Your task to perform on an android device: open app "Google Play Music" Image 0: 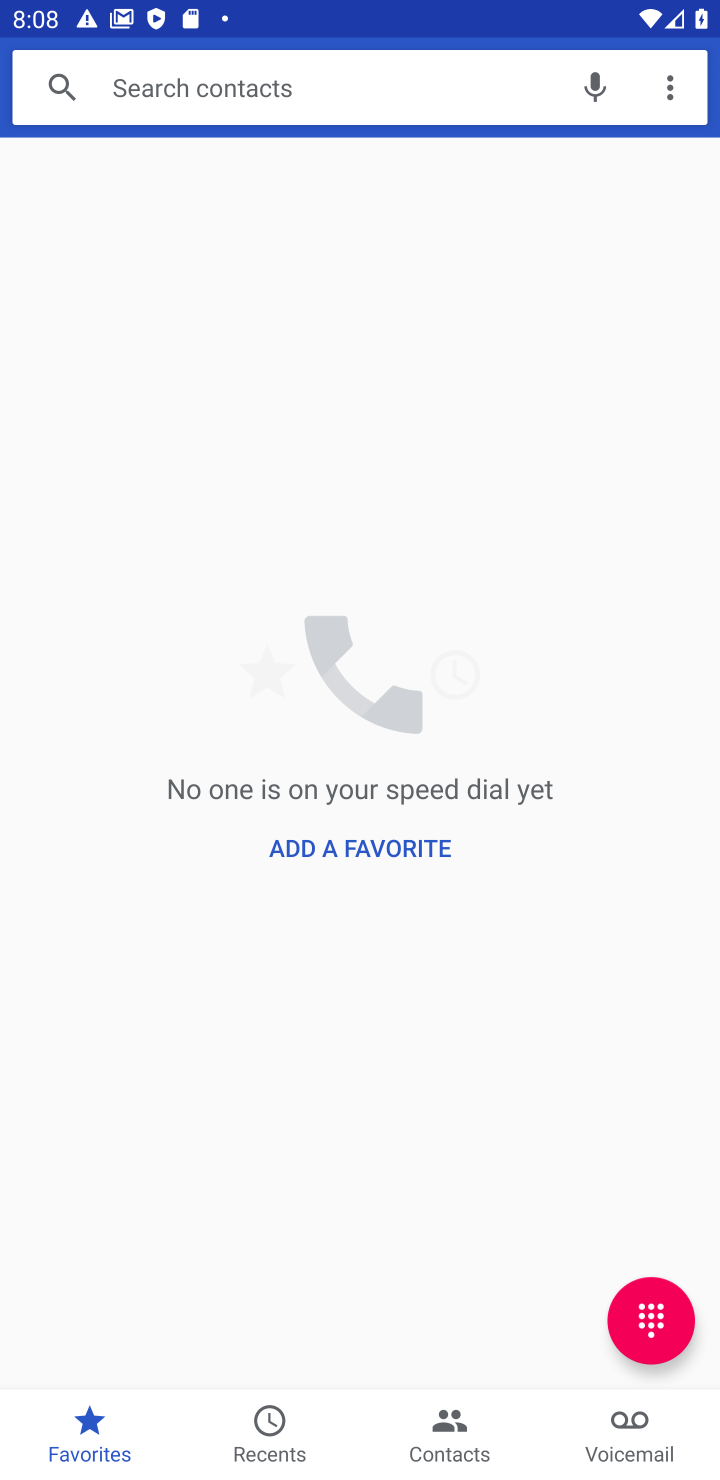
Step 0: press home button
Your task to perform on an android device: open app "Google Play Music" Image 1: 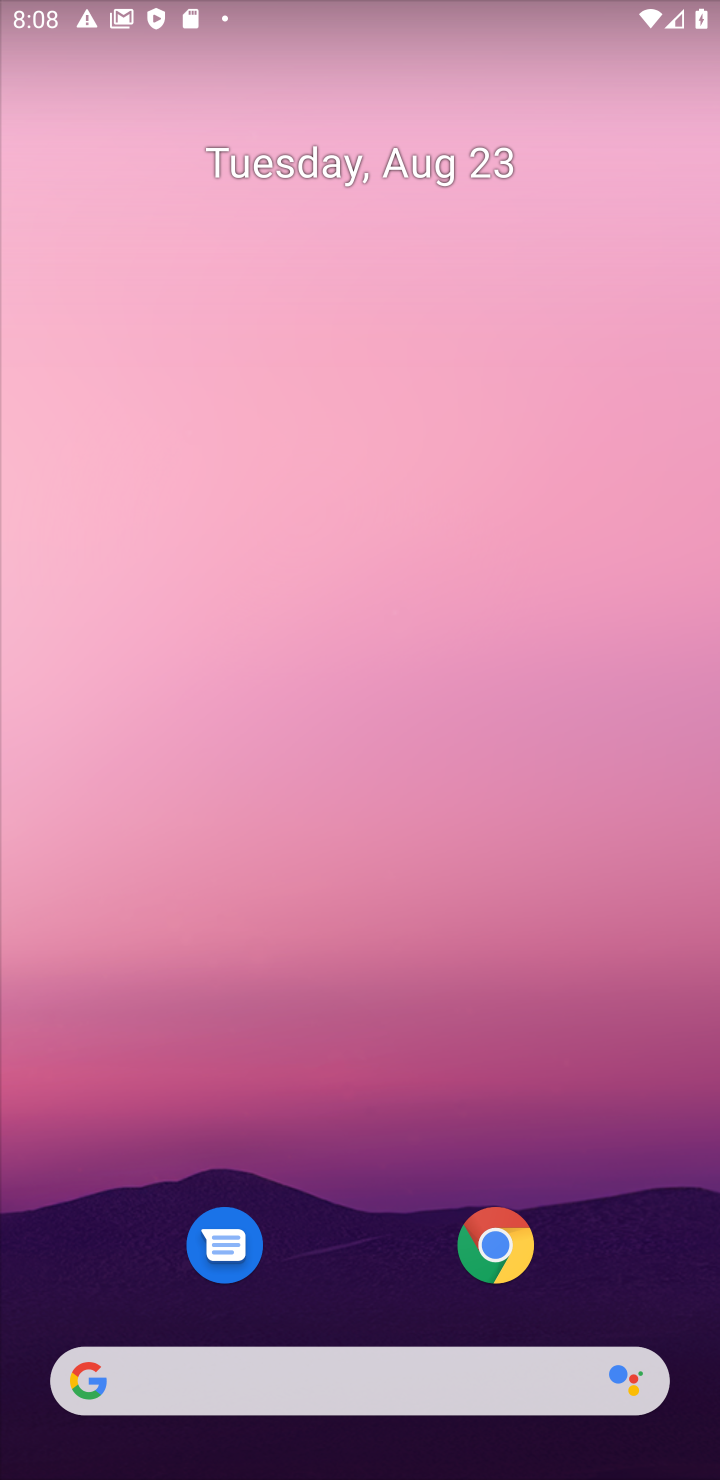
Step 1: drag from (368, 1237) to (361, 72)
Your task to perform on an android device: open app "Google Play Music" Image 2: 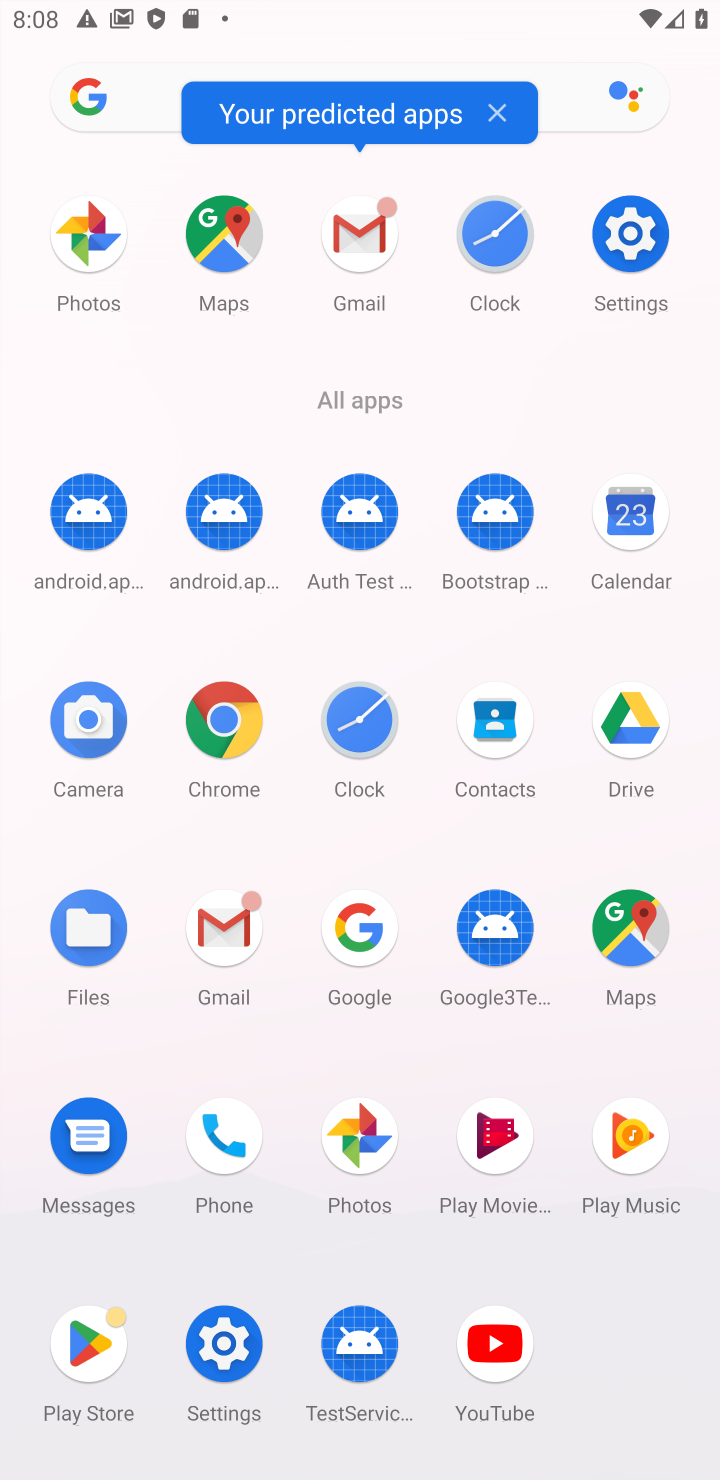
Step 2: click (90, 1351)
Your task to perform on an android device: open app "Google Play Music" Image 3: 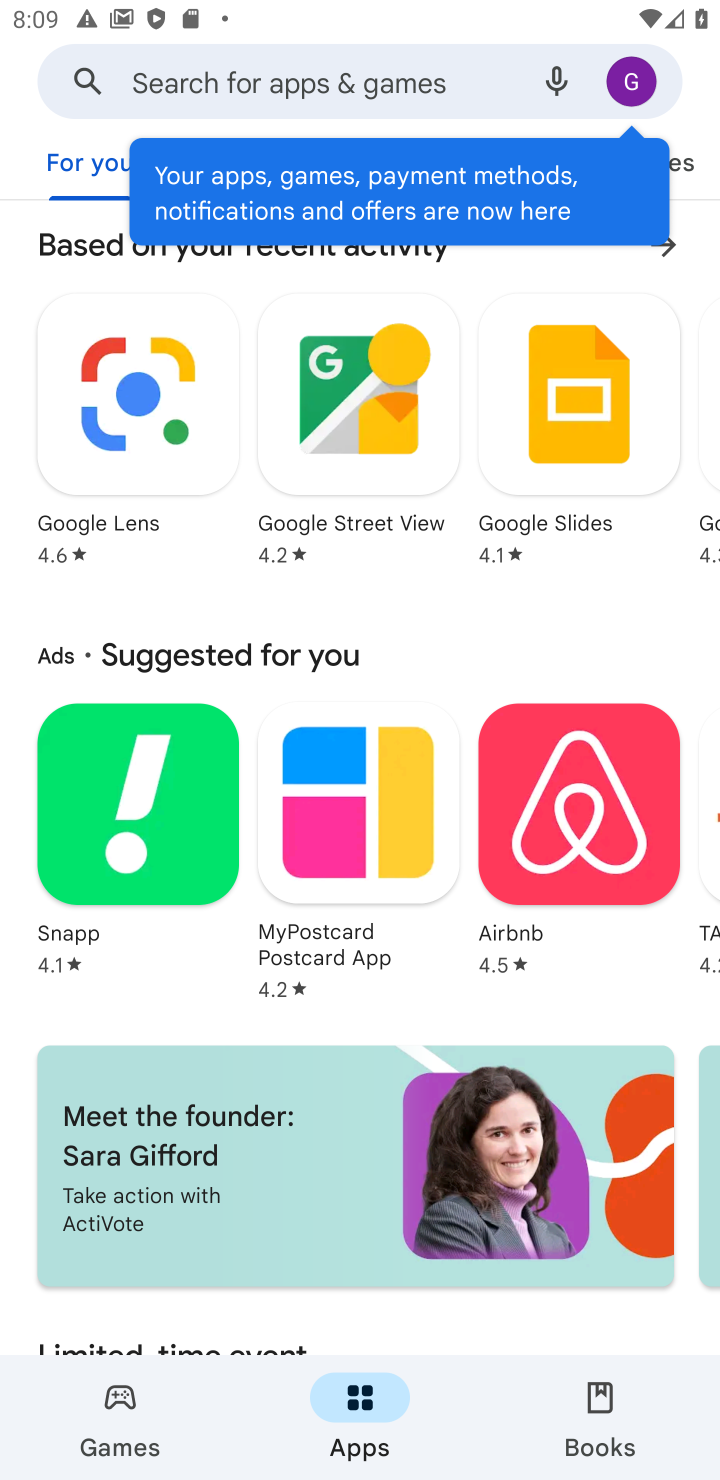
Step 3: click (399, 93)
Your task to perform on an android device: open app "Google Play Music" Image 4: 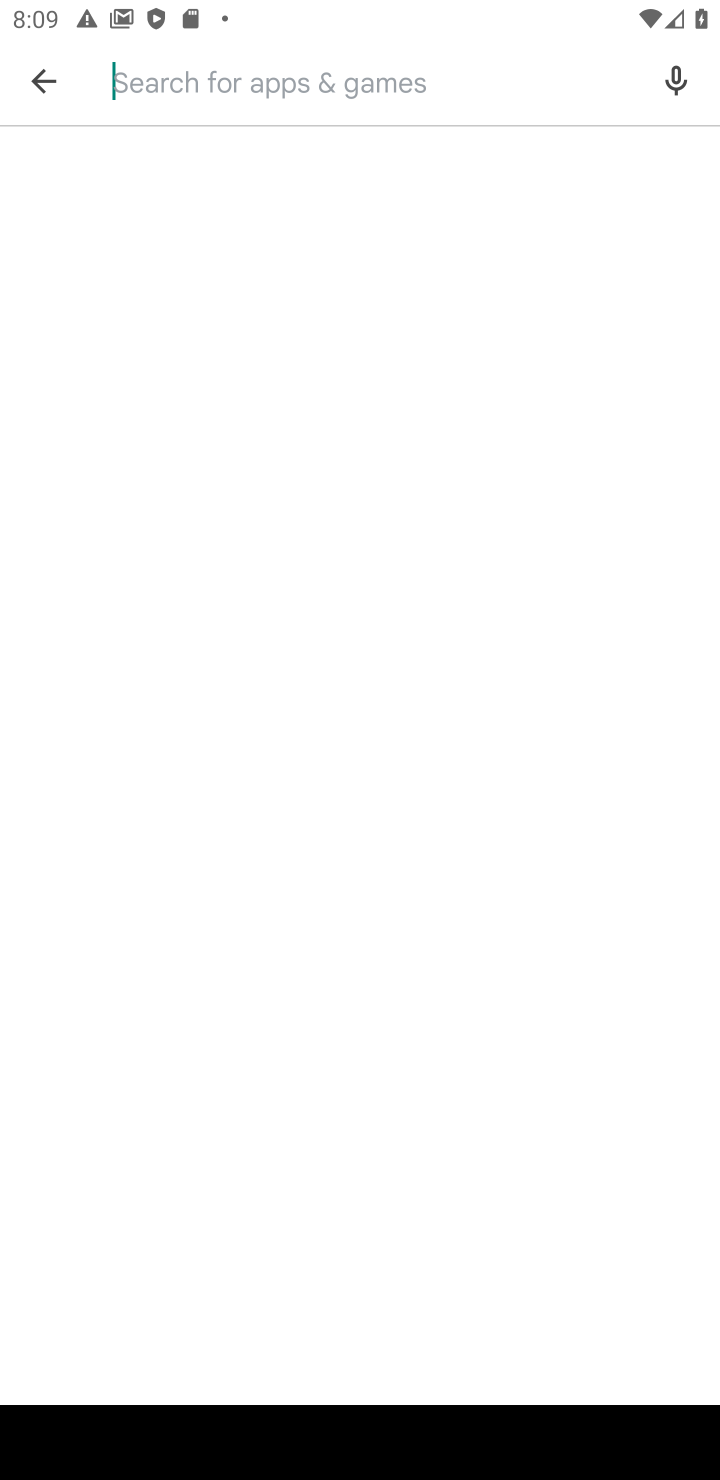
Step 4: type "Google Play Music"
Your task to perform on an android device: open app "Google Play Music" Image 5: 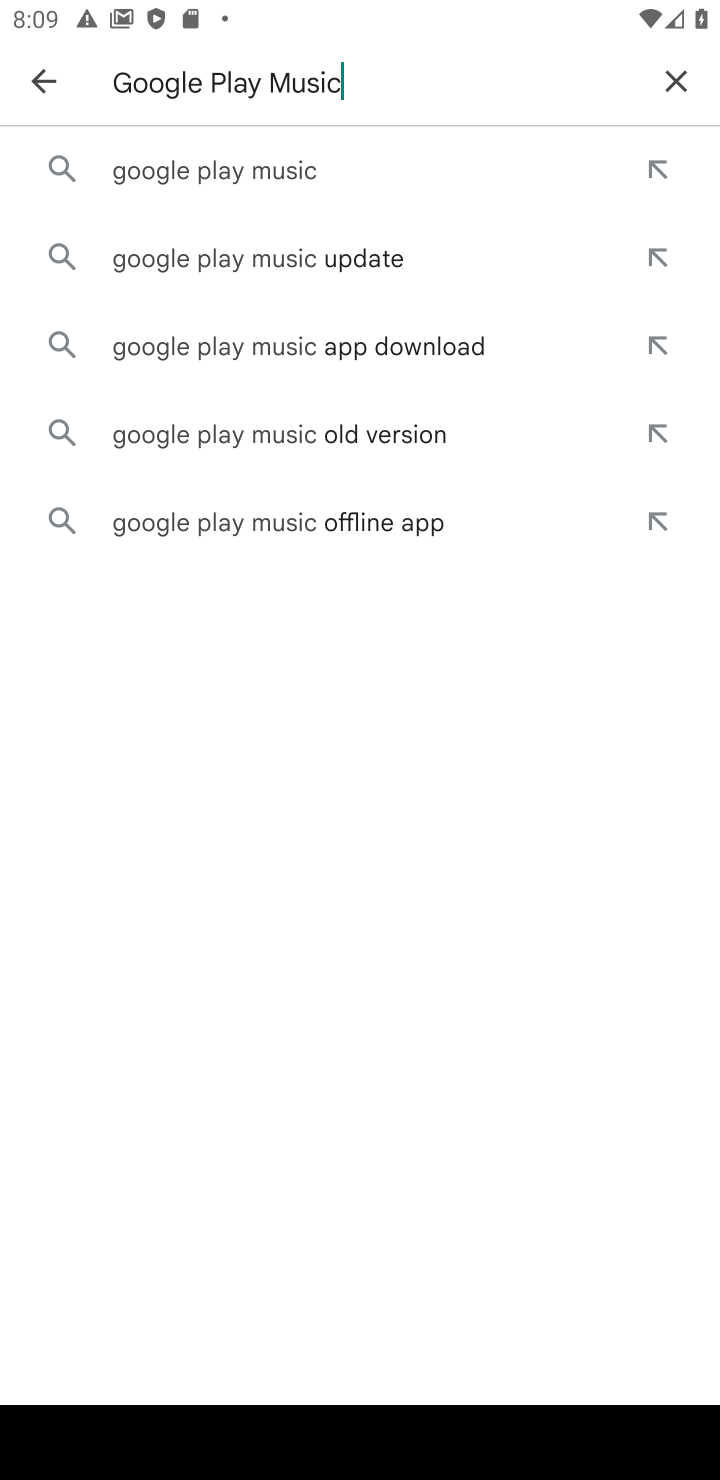
Step 5: click (250, 170)
Your task to perform on an android device: open app "Google Play Music" Image 6: 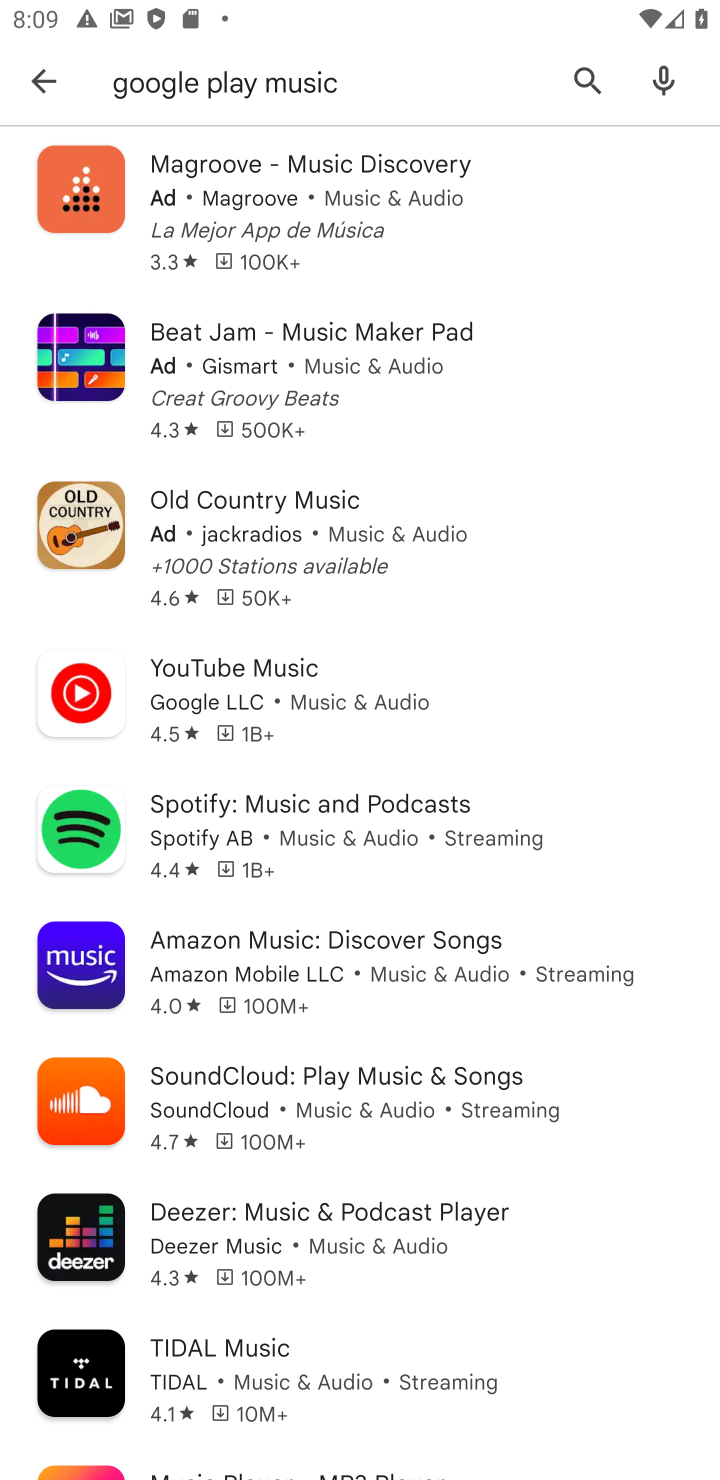
Step 6: task complete